Your task to perform on an android device: Open the web browser Image 0: 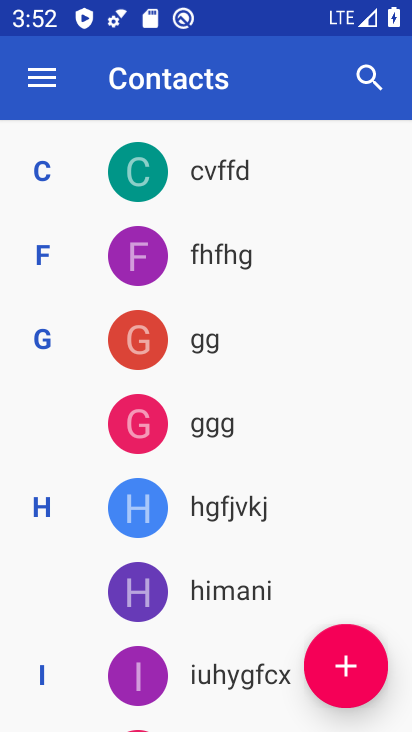
Step 0: press back button
Your task to perform on an android device: Open the web browser Image 1: 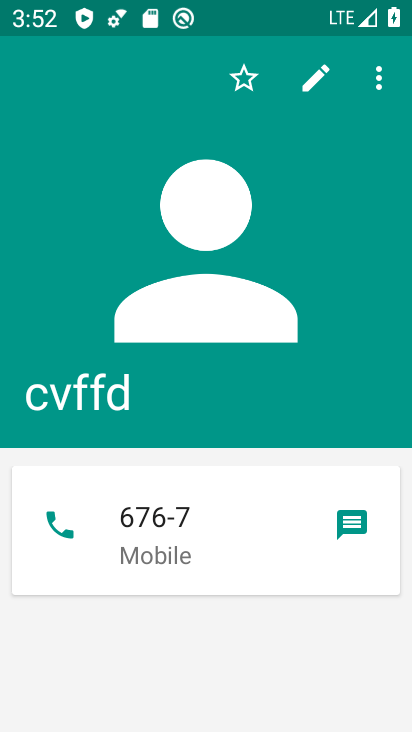
Step 1: press back button
Your task to perform on an android device: Open the web browser Image 2: 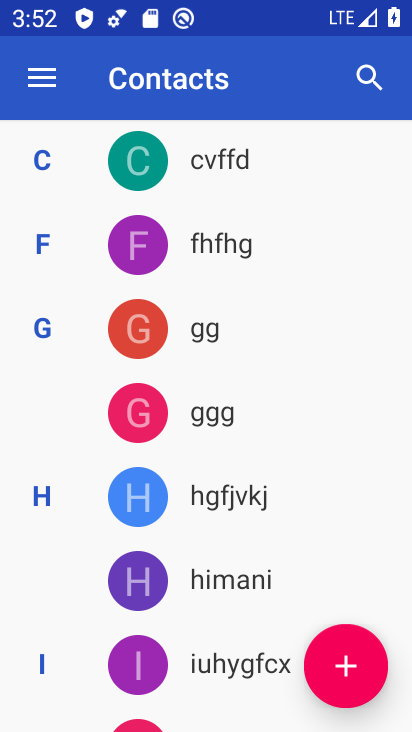
Step 2: press home button
Your task to perform on an android device: Open the web browser Image 3: 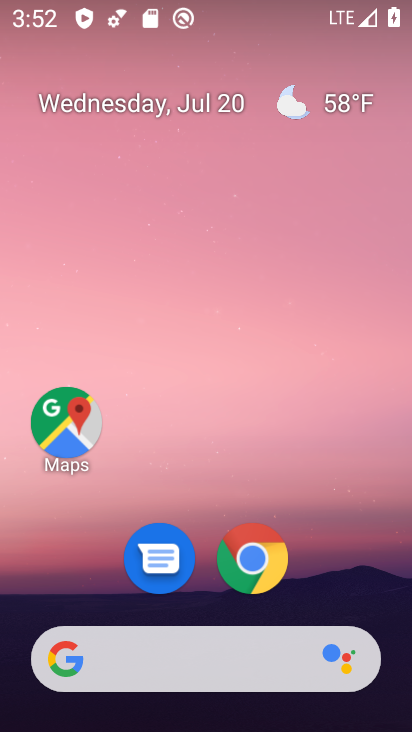
Step 3: click (244, 566)
Your task to perform on an android device: Open the web browser Image 4: 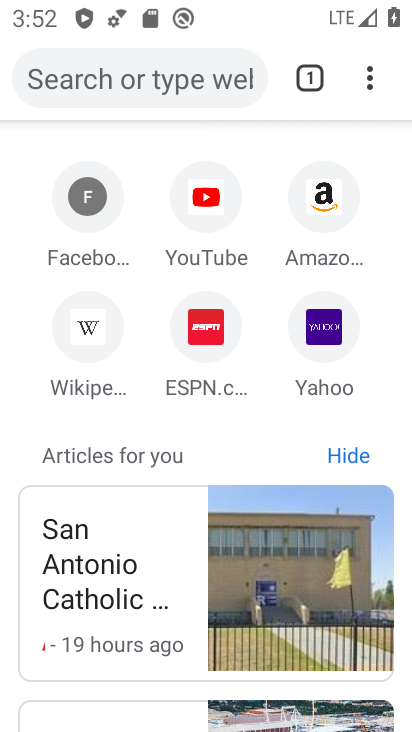
Step 4: task complete